Your task to perform on an android device: make emails show in primary in the gmail app Image 0: 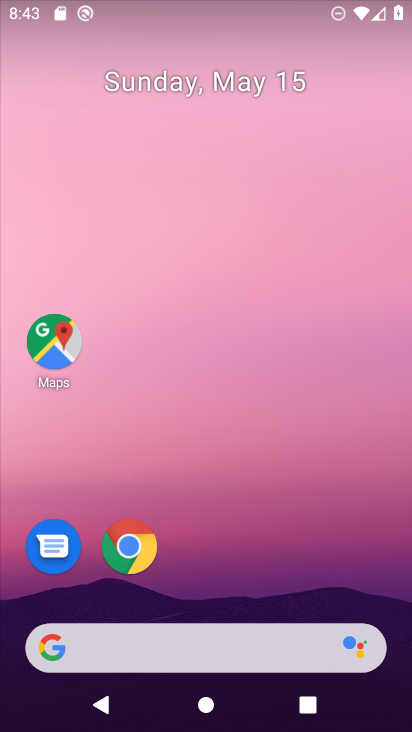
Step 0: drag from (272, 542) to (212, 26)
Your task to perform on an android device: make emails show in primary in the gmail app Image 1: 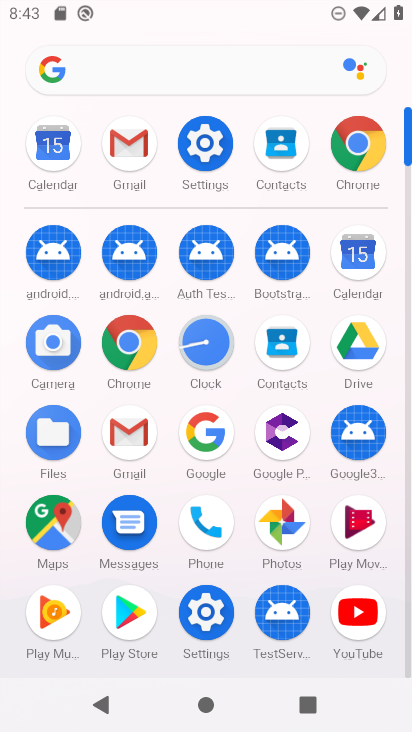
Step 1: click (136, 141)
Your task to perform on an android device: make emails show in primary in the gmail app Image 2: 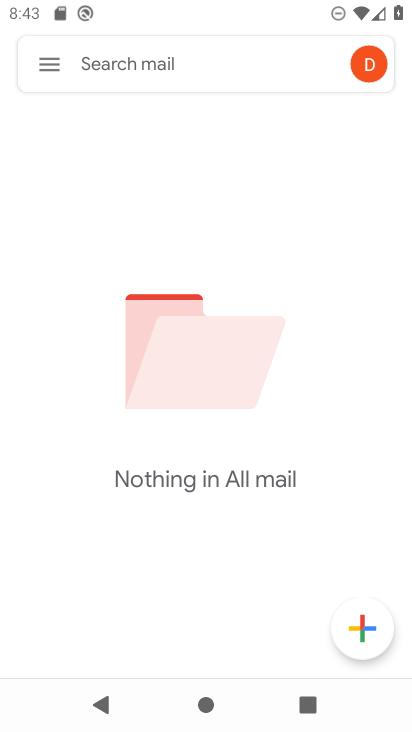
Step 2: click (55, 64)
Your task to perform on an android device: make emails show in primary in the gmail app Image 3: 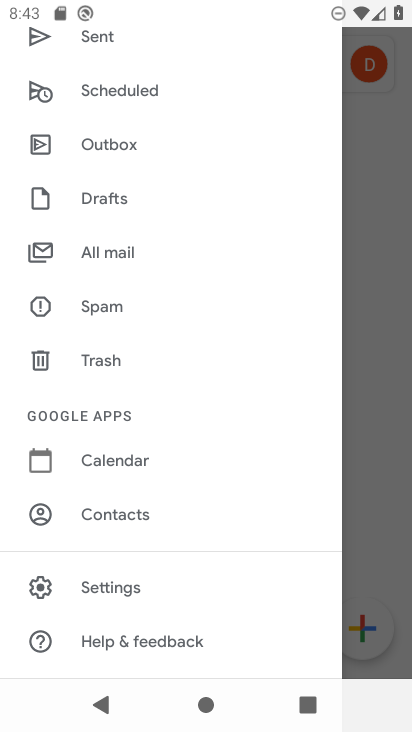
Step 3: click (107, 588)
Your task to perform on an android device: make emails show in primary in the gmail app Image 4: 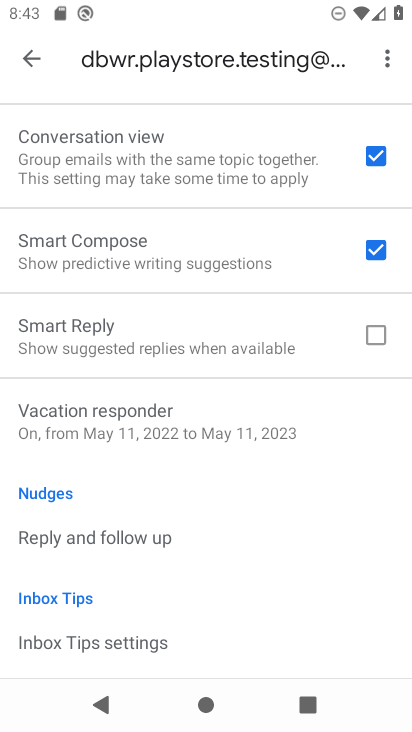
Step 4: drag from (173, 166) to (213, 534)
Your task to perform on an android device: make emails show in primary in the gmail app Image 5: 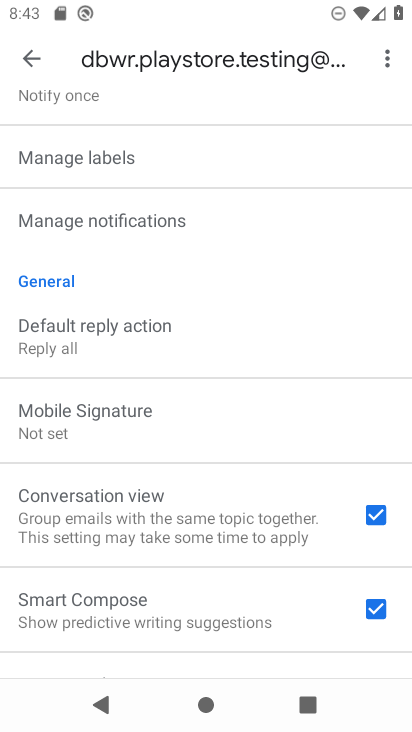
Step 5: drag from (150, 182) to (231, 510)
Your task to perform on an android device: make emails show in primary in the gmail app Image 6: 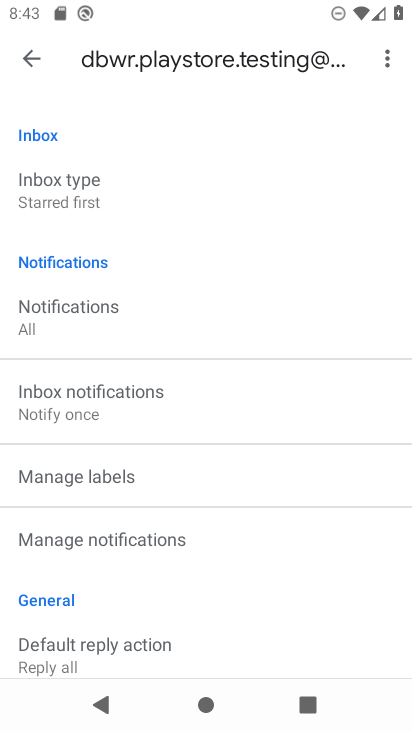
Step 6: click (89, 190)
Your task to perform on an android device: make emails show in primary in the gmail app Image 7: 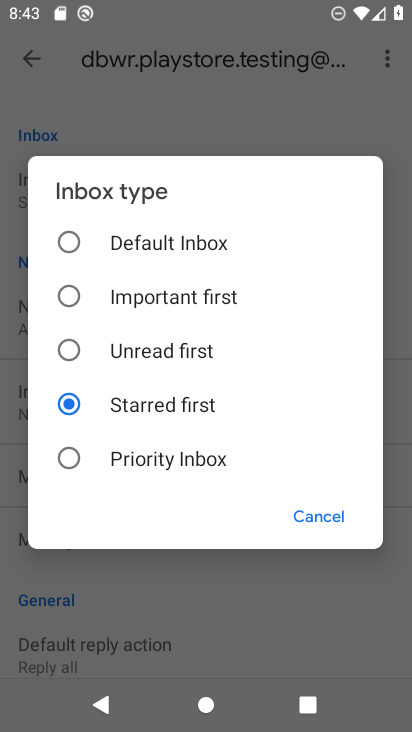
Step 7: click (72, 232)
Your task to perform on an android device: make emails show in primary in the gmail app Image 8: 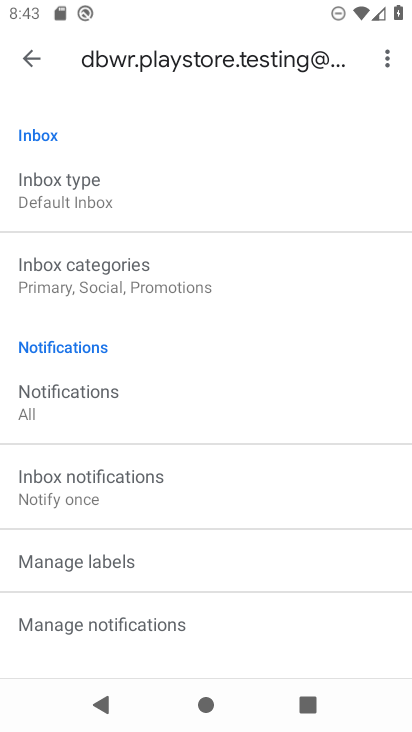
Step 8: click (85, 268)
Your task to perform on an android device: make emails show in primary in the gmail app Image 9: 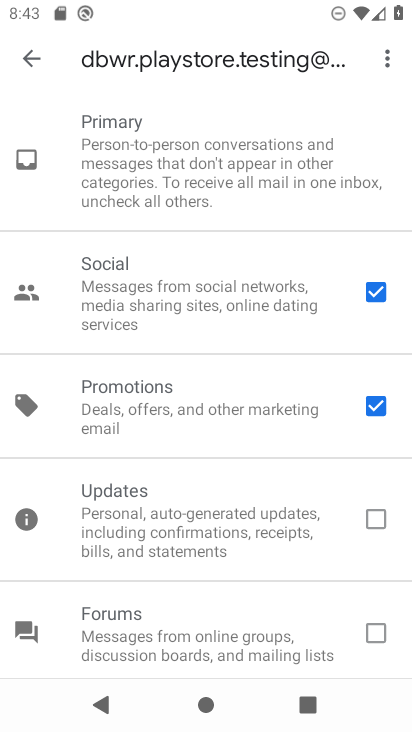
Step 9: click (375, 288)
Your task to perform on an android device: make emails show in primary in the gmail app Image 10: 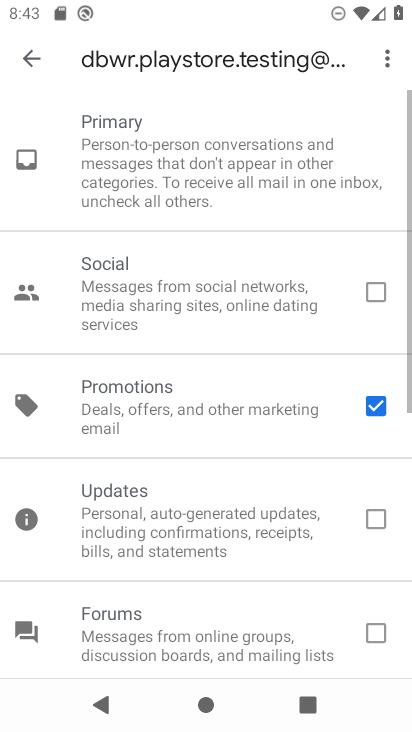
Step 10: click (378, 404)
Your task to perform on an android device: make emails show in primary in the gmail app Image 11: 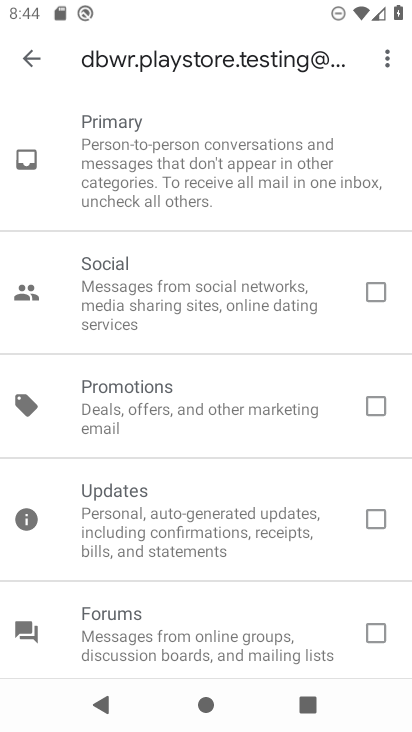
Step 11: task complete